Your task to perform on an android device: Go to Yahoo.com Image 0: 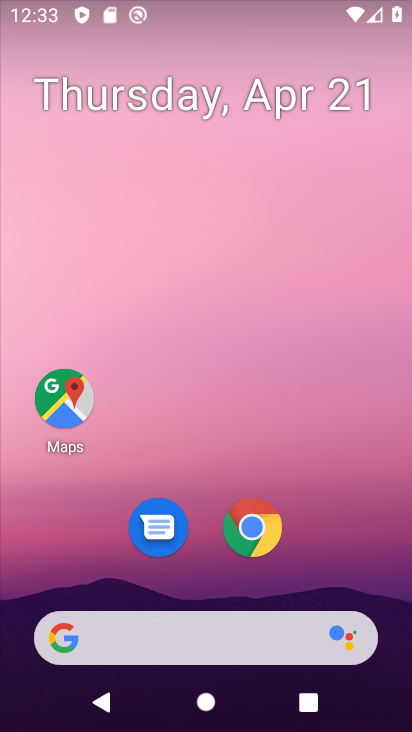
Step 0: drag from (339, 561) to (346, 144)
Your task to perform on an android device: Go to Yahoo.com Image 1: 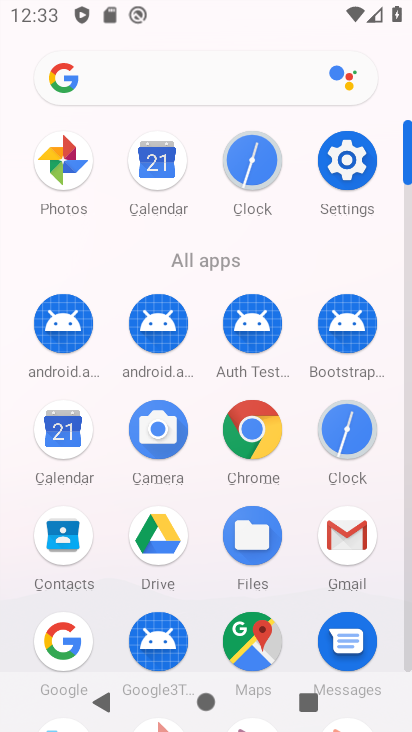
Step 1: click (261, 434)
Your task to perform on an android device: Go to Yahoo.com Image 2: 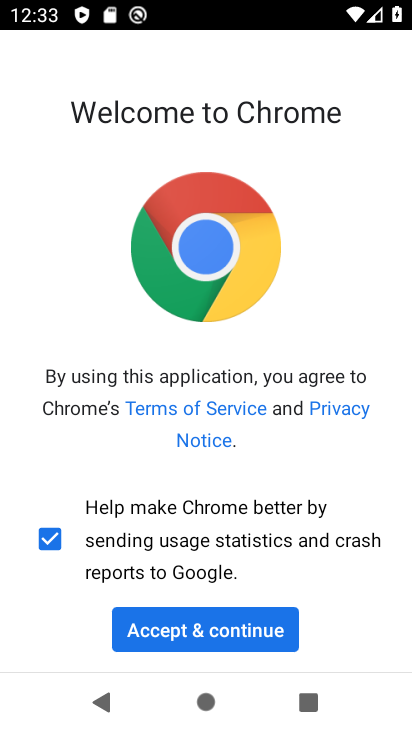
Step 2: click (284, 635)
Your task to perform on an android device: Go to Yahoo.com Image 3: 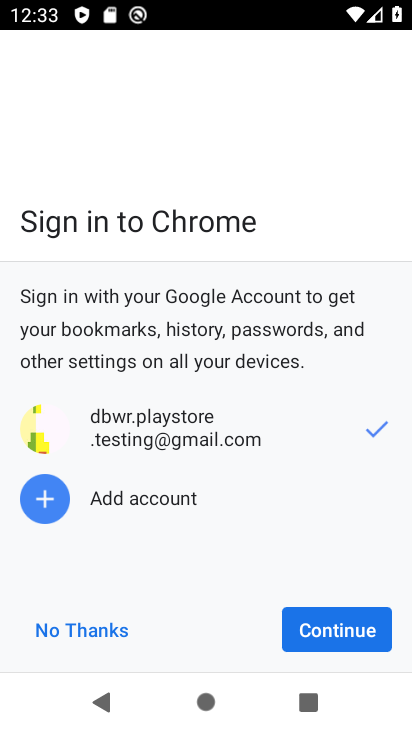
Step 3: click (312, 635)
Your task to perform on an android device: Go to Yahoo.com Image 4: 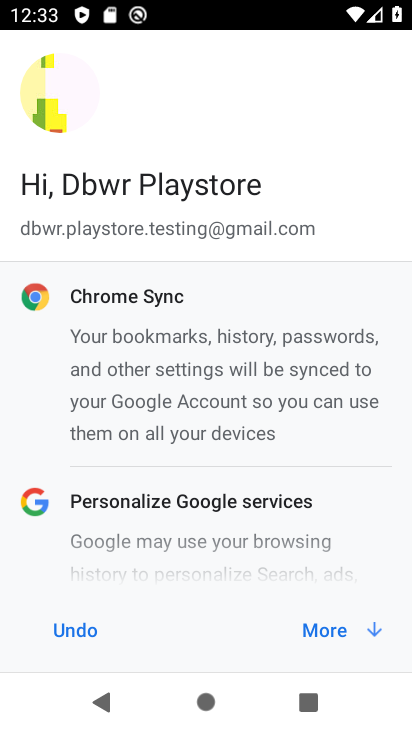
Step 4: click (314, 635)
Your task to perform on an android device: Go to Yahoo.com Image 5: 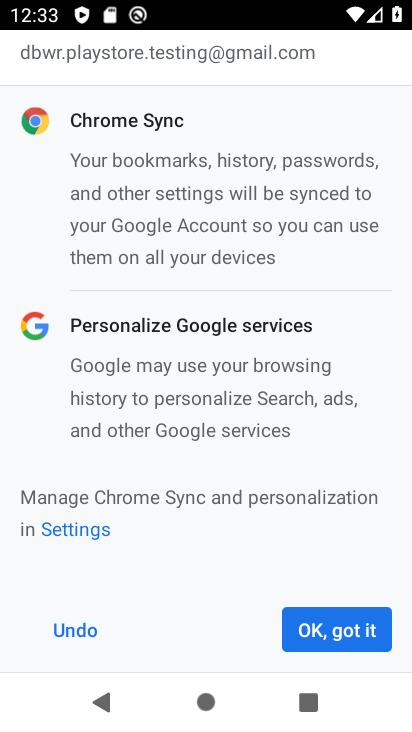
Step 5: click (315, 636)
Your task to perform on an android device: Go to Yahoo.com Image 6: 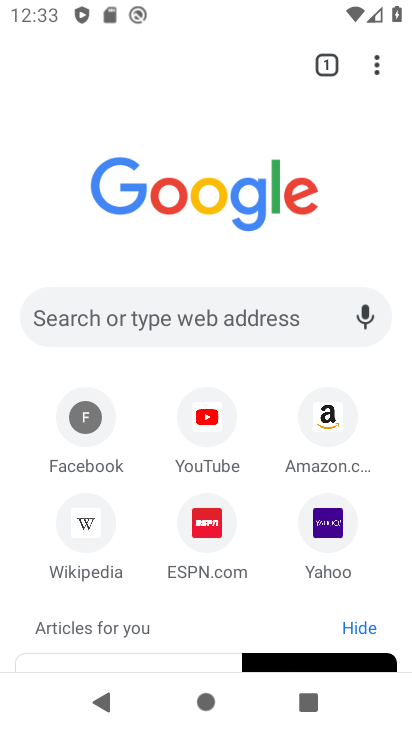
Step 6: click (332, 534)
Your task to perform on an android device: Go to Yahoo.com Image 7: 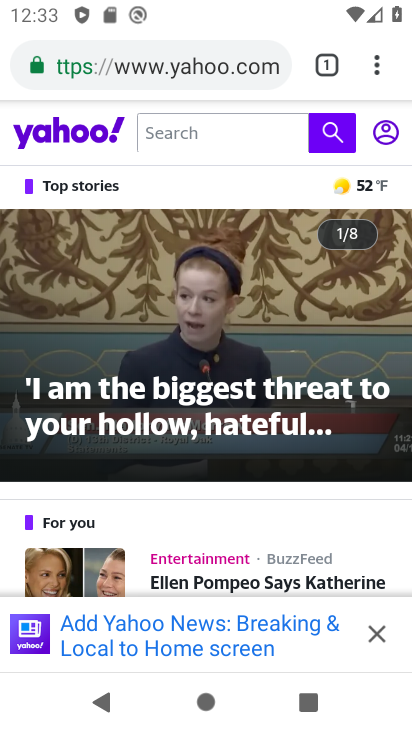
Step 7: task complete